Your task to perform on an android device: Open settings on Google Maps Image 0: 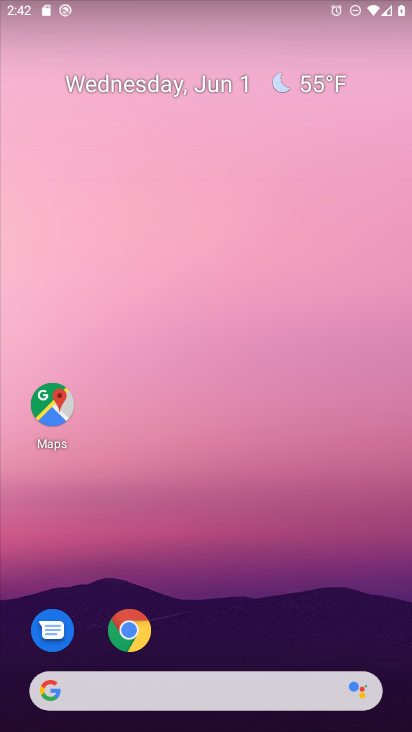
Step 0: drag from (175, 687) to (283, 159)
Your task to perform on an android device: Open settings on Google Maps Image 1: 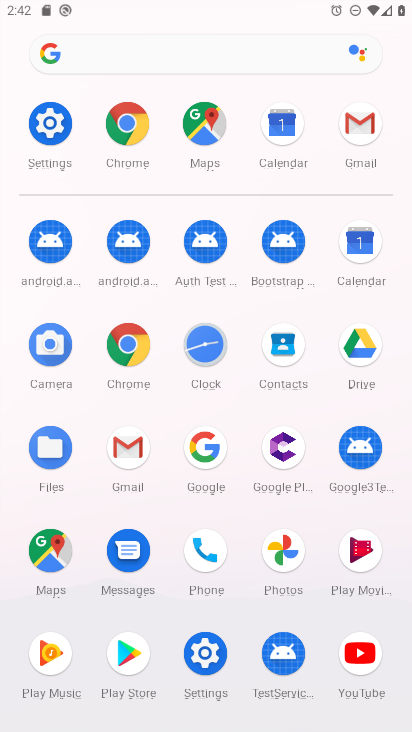
Step 1: click (53, 565)
Your task to perform on an android device: Open settings on Google Maps Image 2: 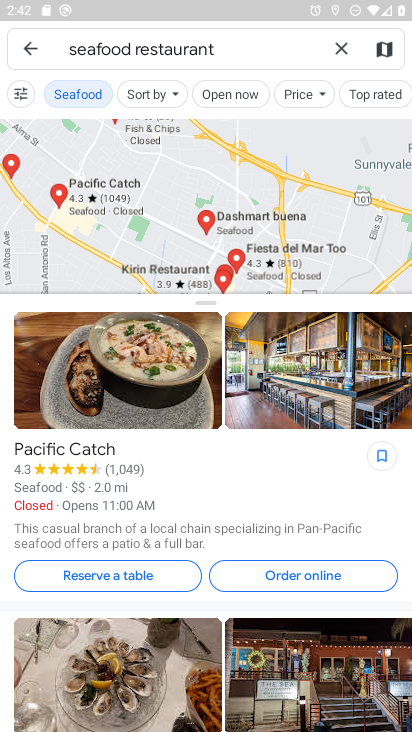
Step 2: press home button
Your task to perform on an android device: Open settings on Google Maps Image 3: 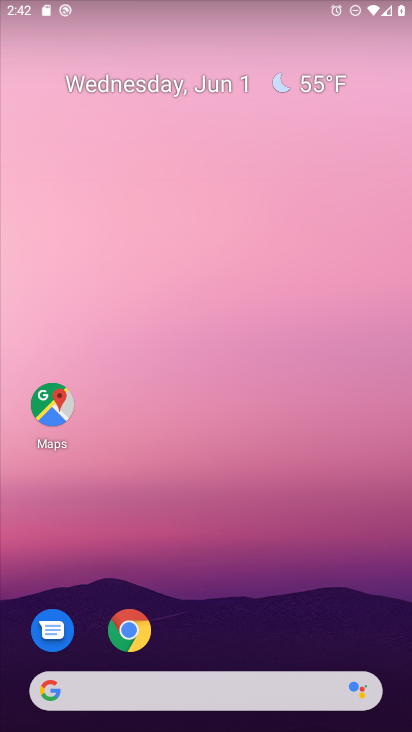
Step 3: drag from (237, 456) to (299, 7)
Your task to perform on an android device: Open settings on Google Maps Image 4: 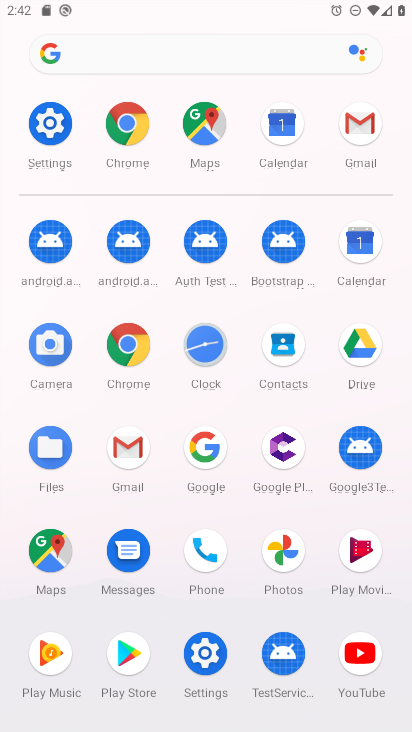
Step 4: click (42, 538)
Your task to perform on an android device: Open settings on Google Maps Image 5: 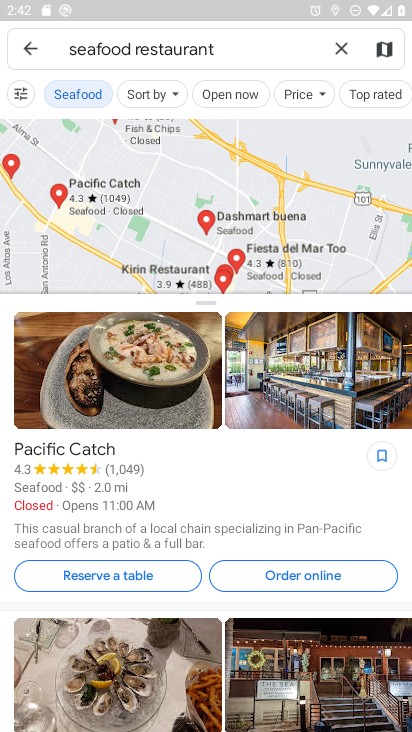
Step 5: press back button
Your task to perform on an android device: Open settings on Google Maps Image 6: 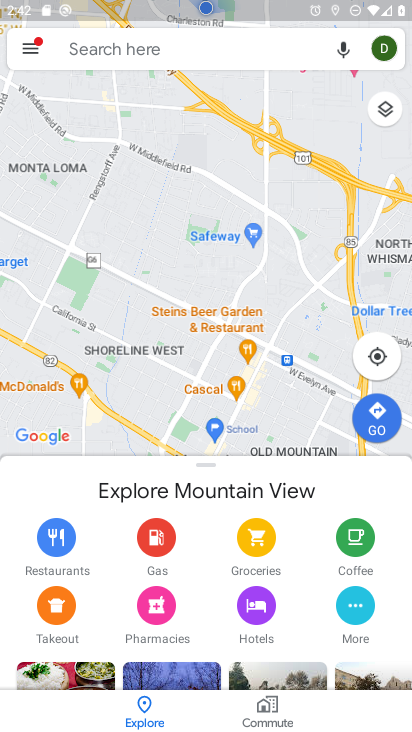
Step 6: click (29, 51)
Your task to perform on an android device: Open settings on Google Maps Image 7: 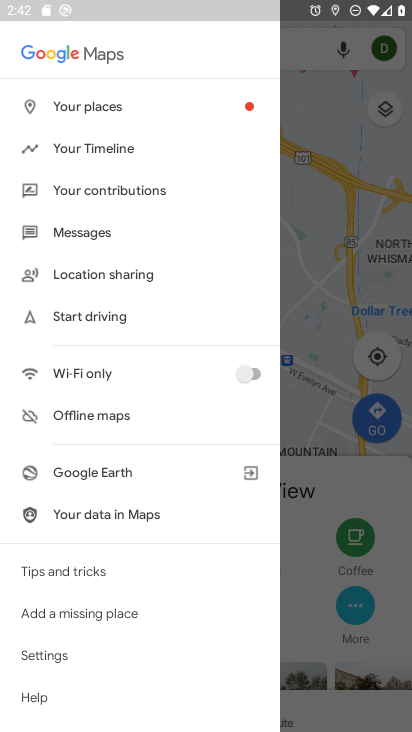
Step 7: click (144, 138)
Your task to perform on an android device: Open settings on Google Maps Image 8: 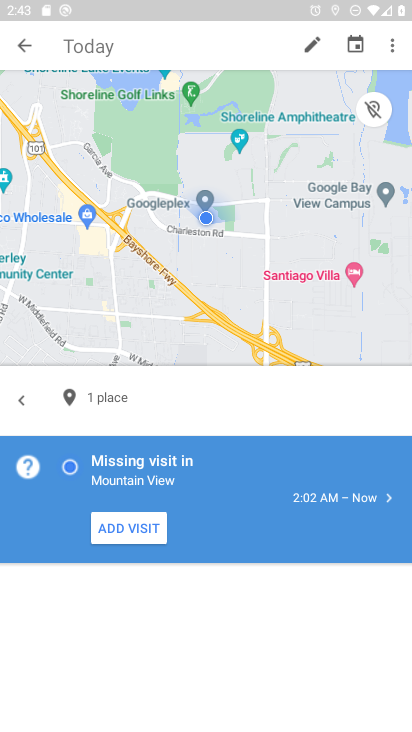
Step 8: click (393, 46)
Your task to perform on an android device: Open settings on Google Maps Image 9: 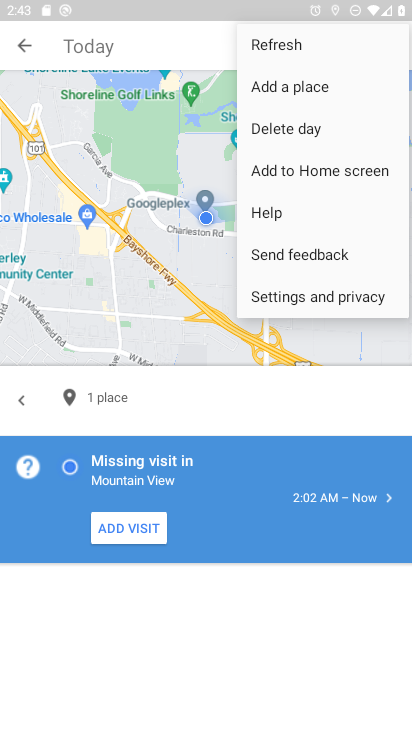
Step 9: click (312, 287)
Your task to perform on an android device: Open settings on Google Maps Image 10: 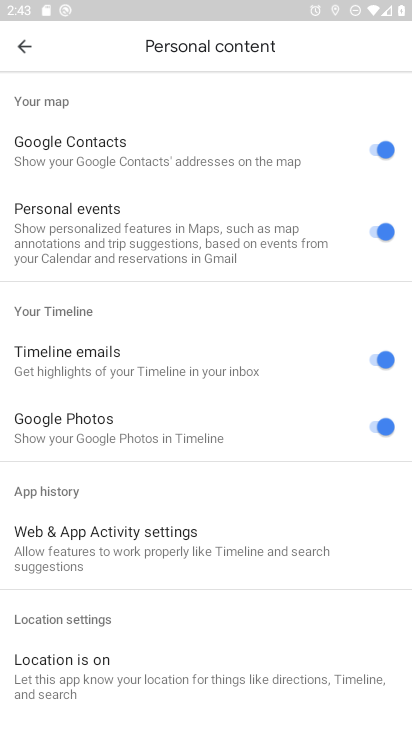
Step 10: task complete